Your task to perform on an android device: turn off wifi Image 0: 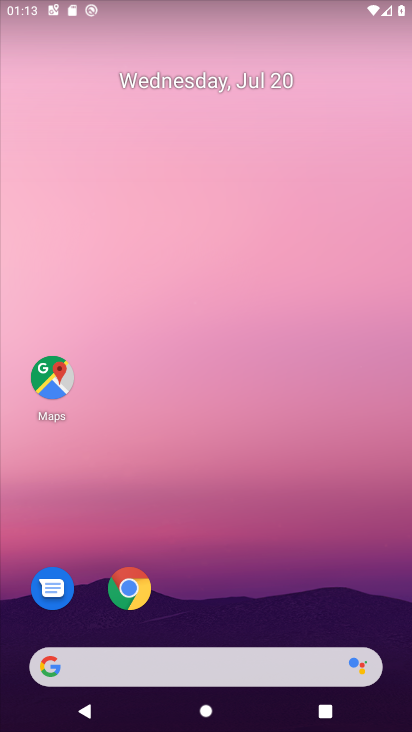
Step 0: drag from (242, 580) to (312, 240)
Your task to perform on an android device: turn off wifi Image 1: 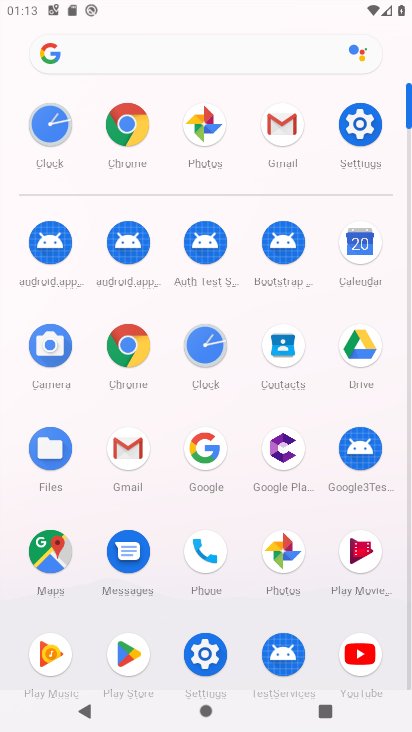
Step 1: click (366, 115)
Your task to perform on an android device: turn off wifi Image 2: 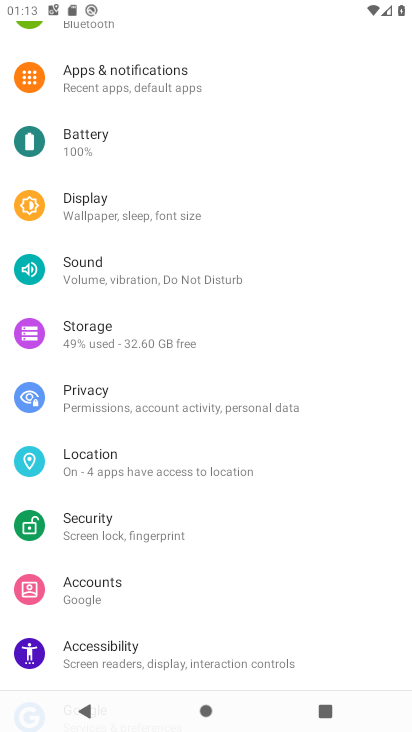
Step 2: drag from (150, 75) to (147, 686)
Your task to perform on an android device: turn off wifi Image 3: 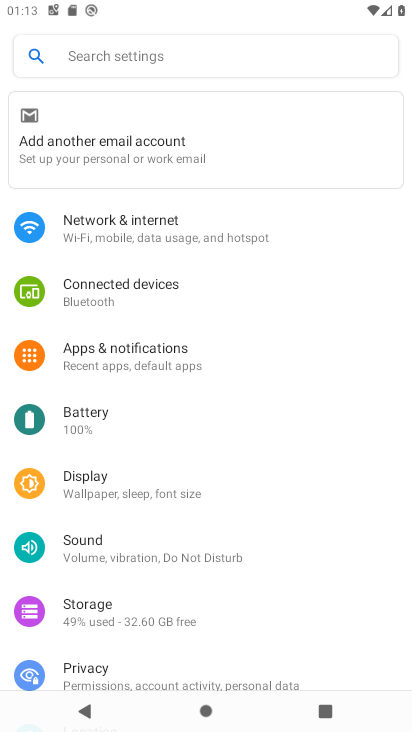
Step 3: click (144, 231)
Your task to perform on an android device: turn off wifi Image 4: 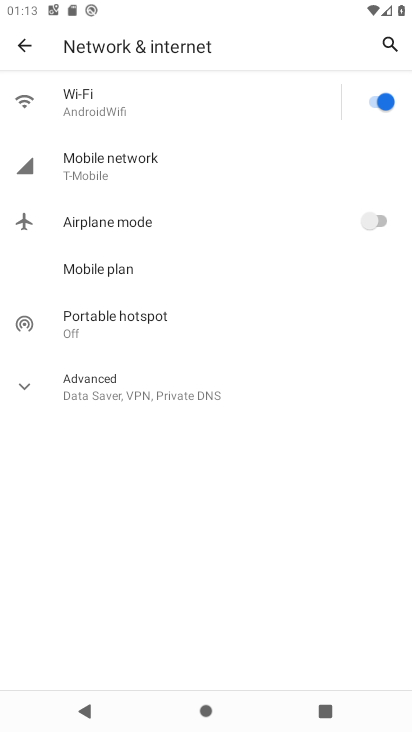
Step 4: click (369, 97)
Your task to perform on an android device: turn off wifi Image 5: 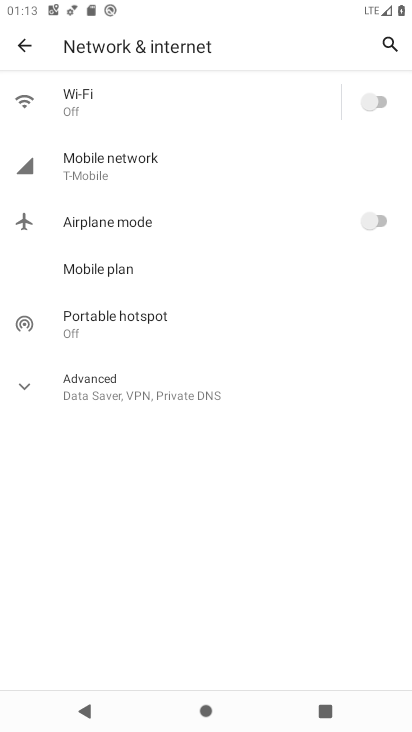
Step 5: task complete